Your task to perform on an android device: When is my next meeting? Image 0: 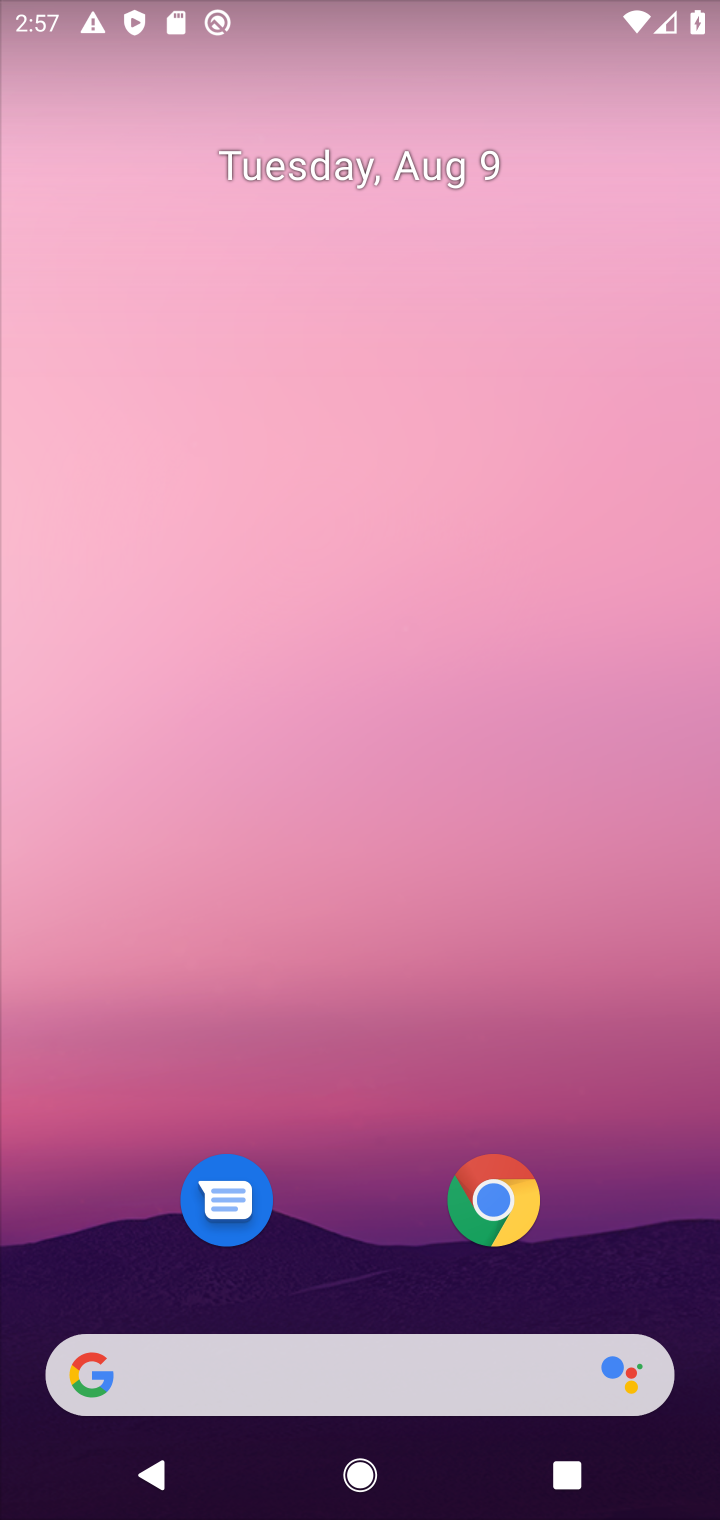
Step 0: drag from (396, 1329) to (302, 25)
Your task to perform on an android device: When is my next meeting? Image 1: 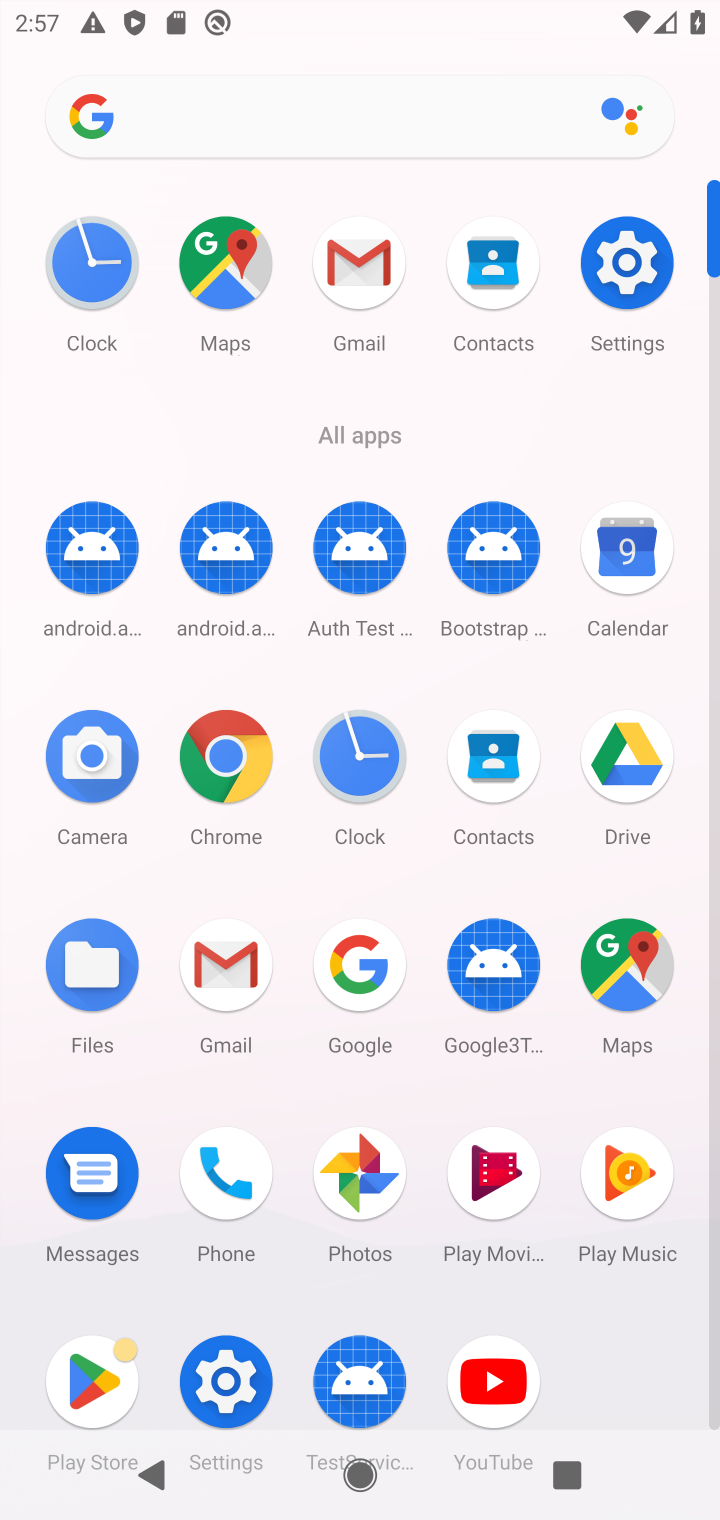
Step 1: click (658, 560)
Your task to perform on an android device: When is my next meeting? Image 2: 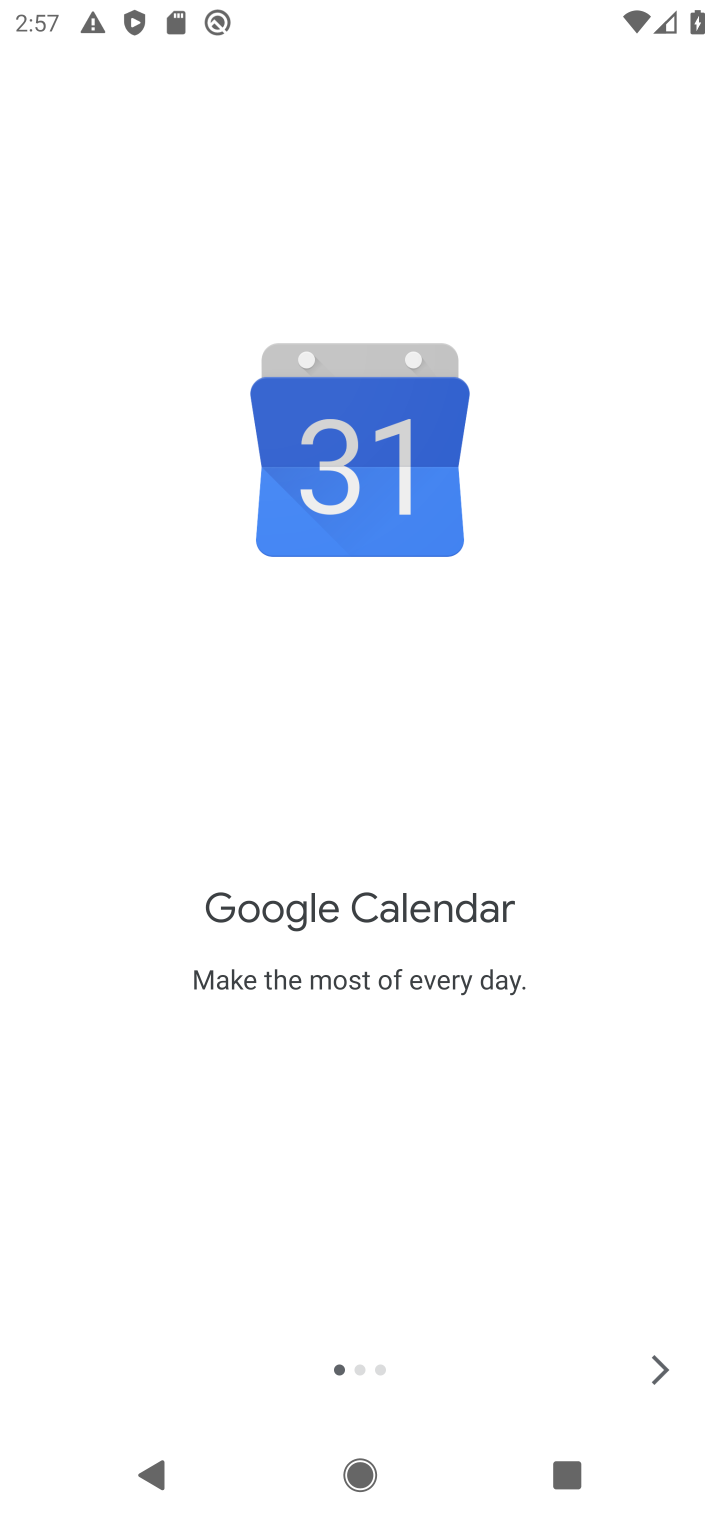
Step 2: click (651, 1374)
Your task to perform on an android device: When is my next meeting? Image 3: 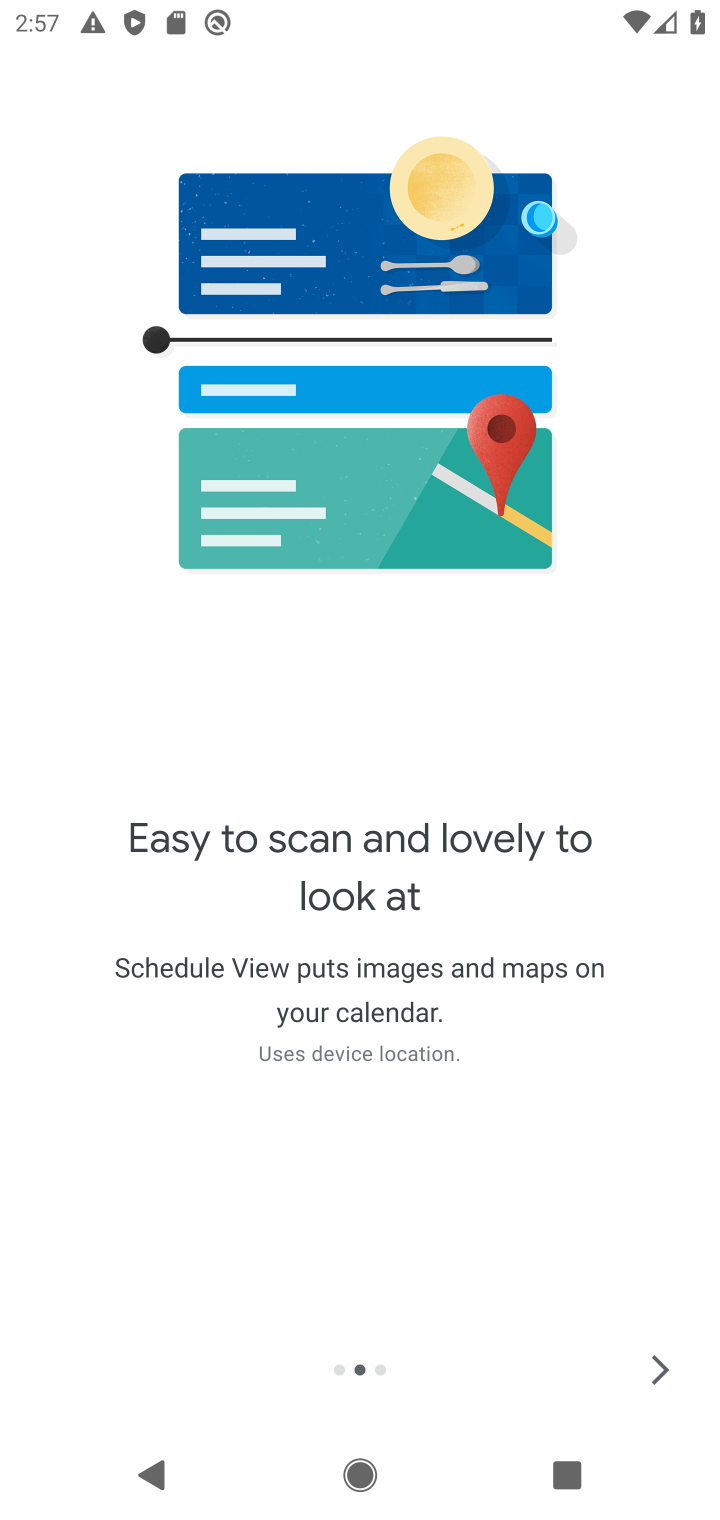
Step 3: click (631, 1373)
Your task to perform on an android device: When is my next meeting? Image 4: 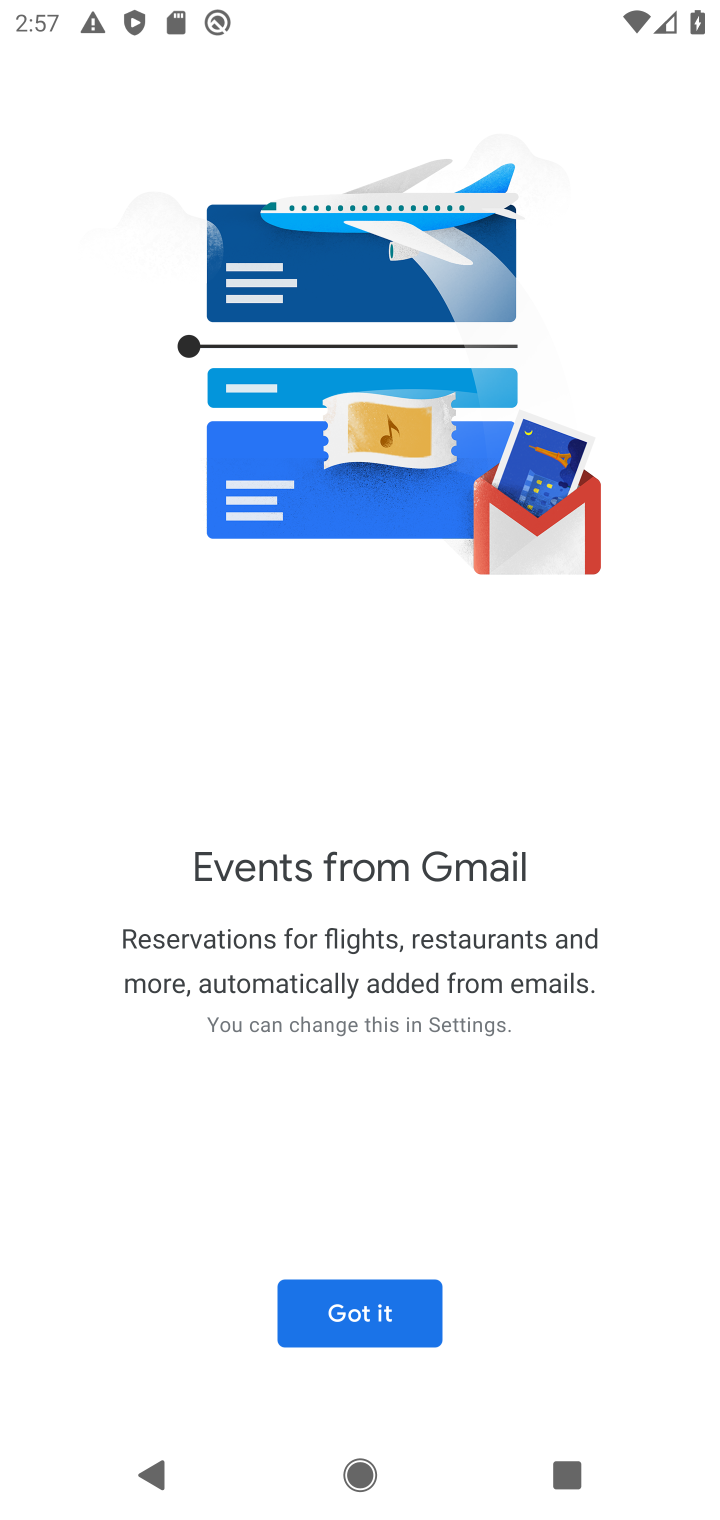
Step 4: click (419, 1319)
Your task to perform on an android device: When is my next meeting? Image 5: 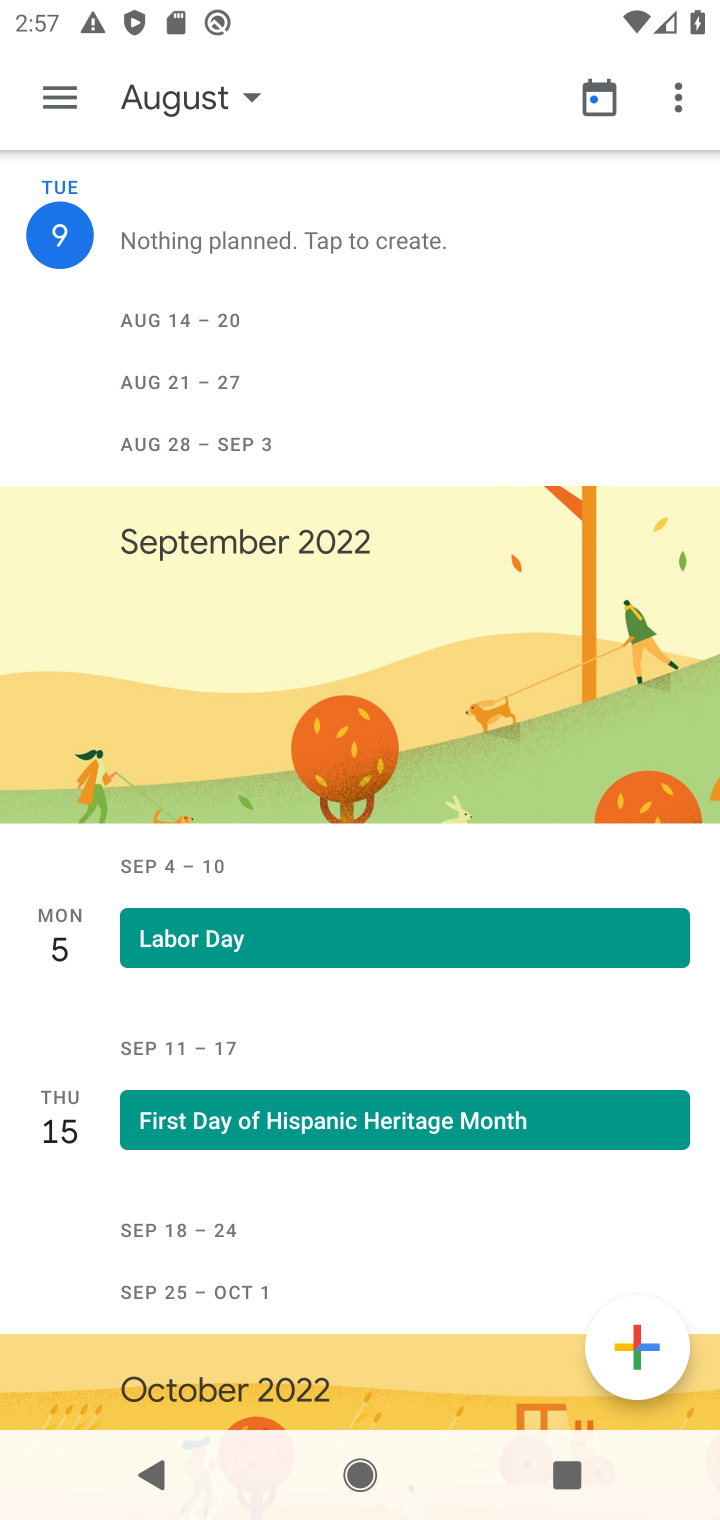
Step 5: click (66, 115)
Your task to perform on an android device: When is my next meeting? Image 6: 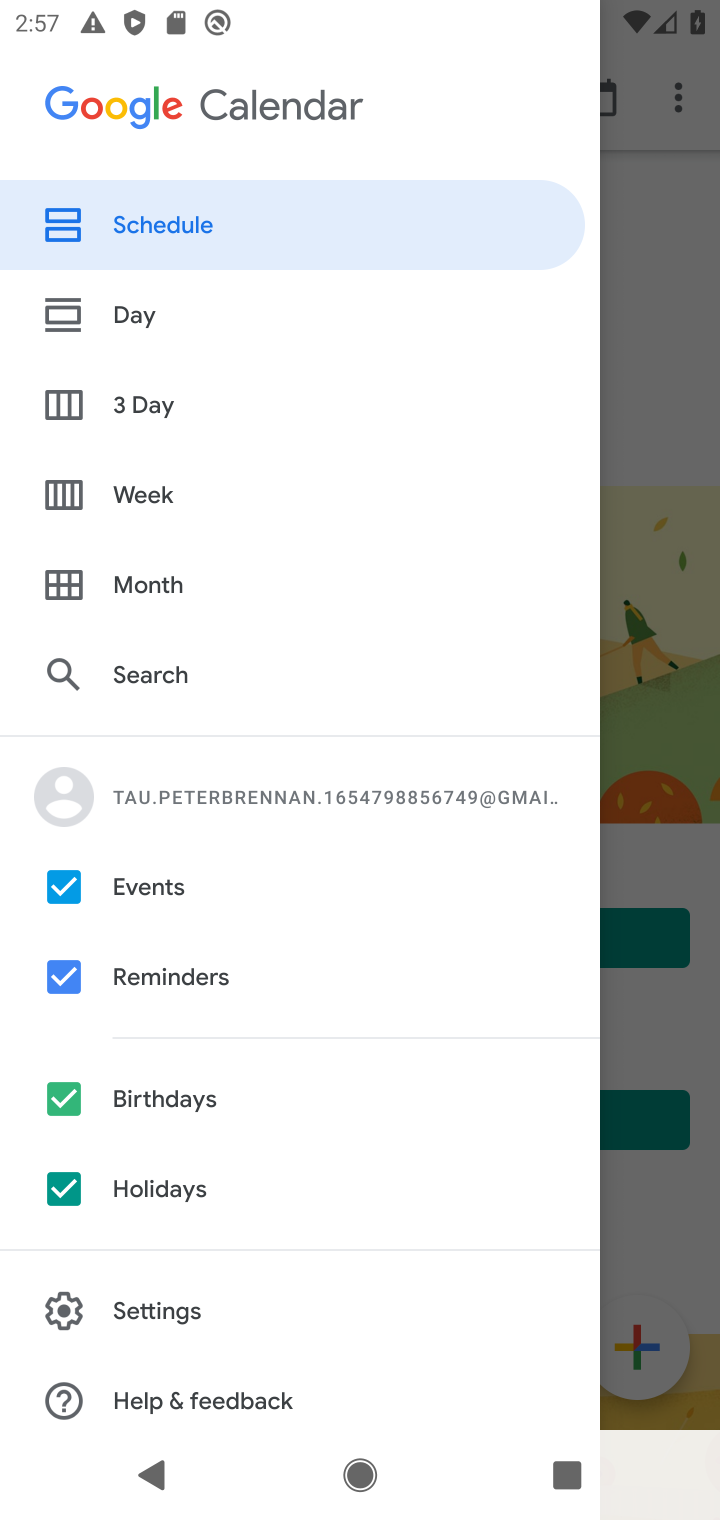
Step 6: click (162, 493)
Your task to perform on an android device: When is my next meeting? Image 7: 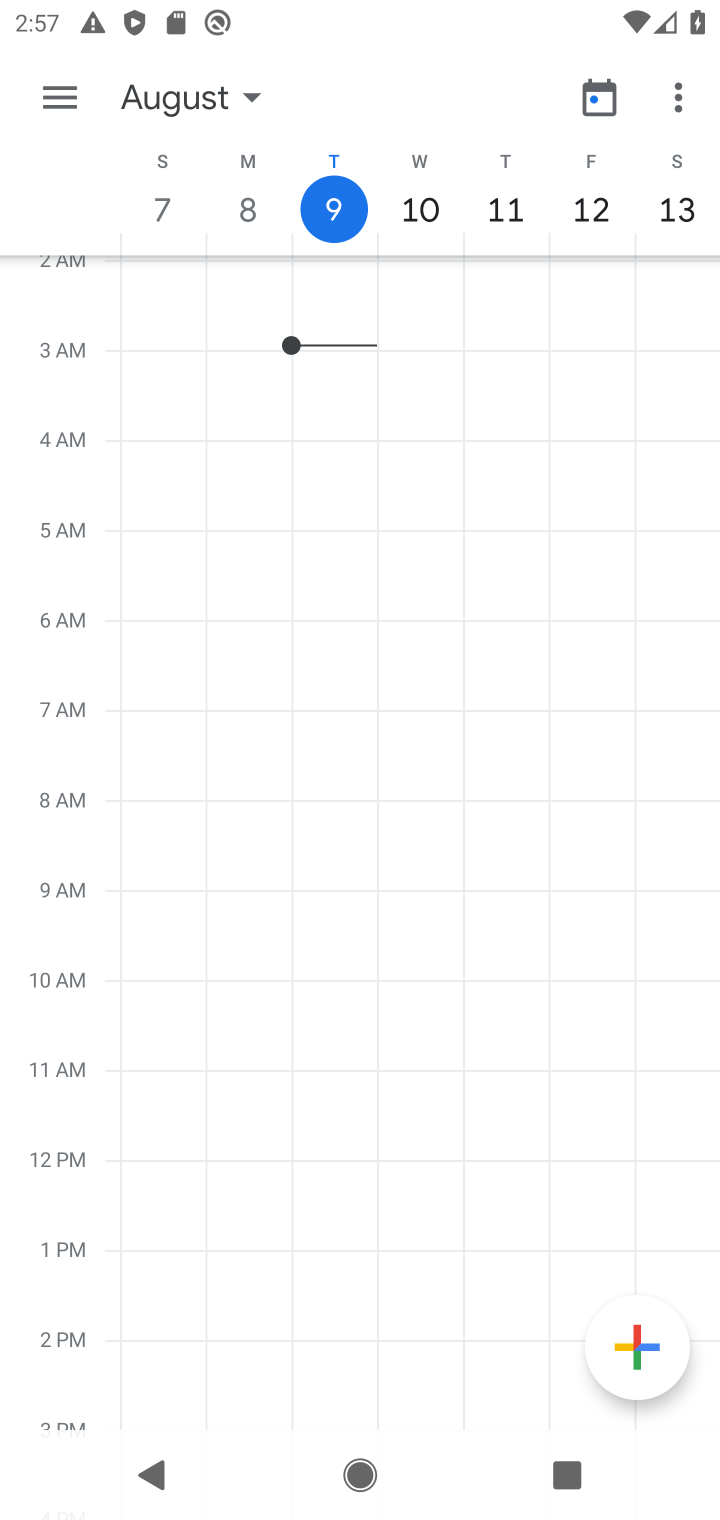
Step 7: task complete